Your task to perform on an android device: Open network settings Image 0: 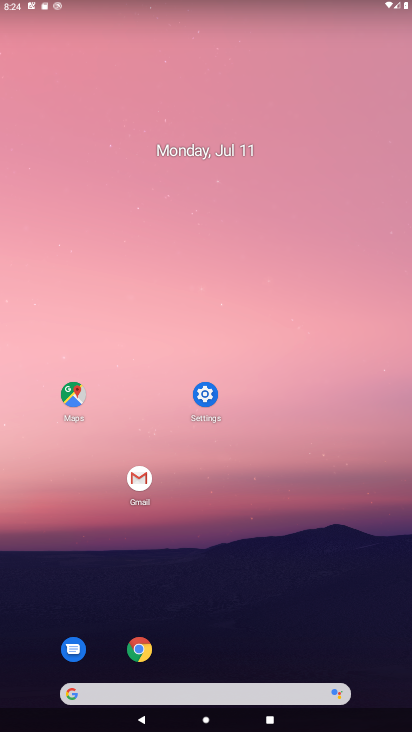
Step 0: click (212, 404)
Your task to perform on an android device: Open network settings Image 1: 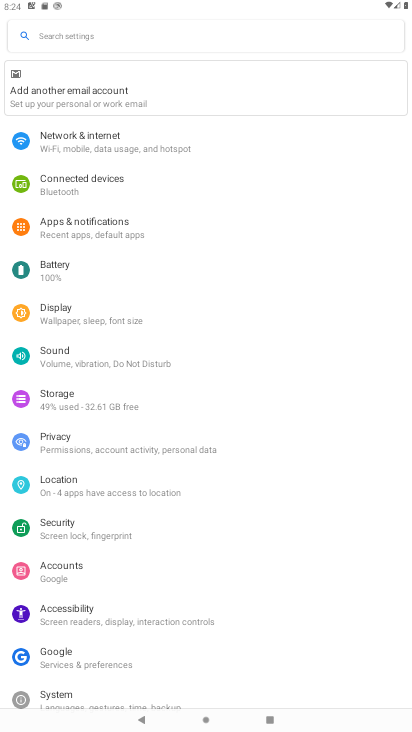
Step 1: click (88, 138)
Your task to perform on an android device: Open network settings Image 2: 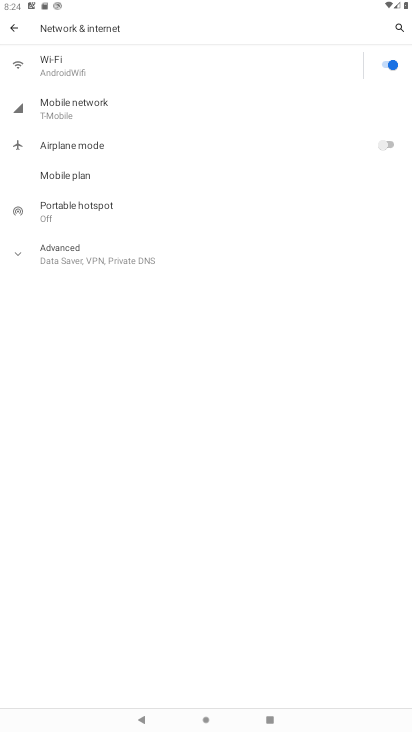
Step 2: task complete